Your task to perform on an android device: Open calendar and show me the third week of next month Image 0: 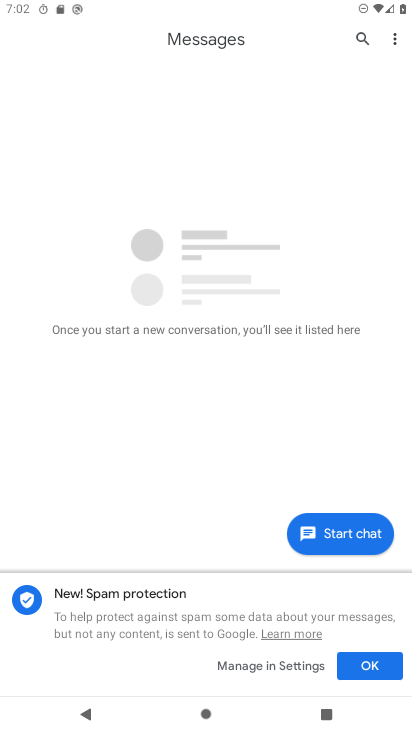
Step 0: press home button
Your task to perform on an android device: Open calendar and show me the third week of next month Image 1: 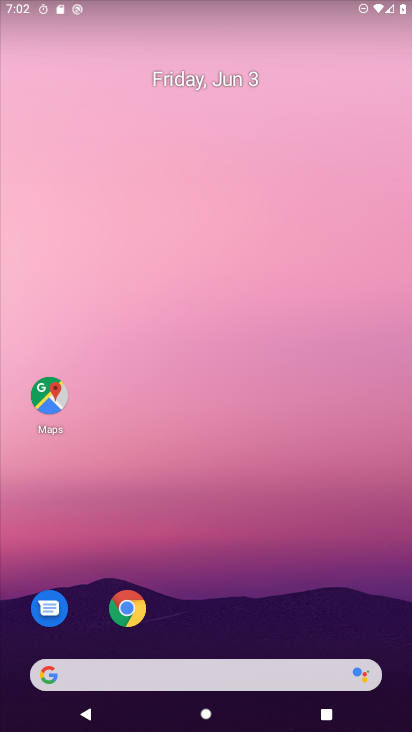
Step 1: click (212, 68)
Your task to perform on an android device: Open calendar and show me the third week of next month Image 2: 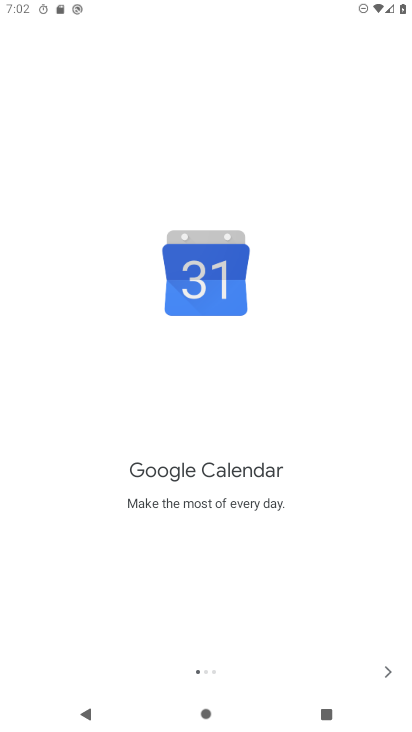
Step 2: click (396, 676)
Your task to perform on an android device: Open calendar and show me the third week of next month Image 3: 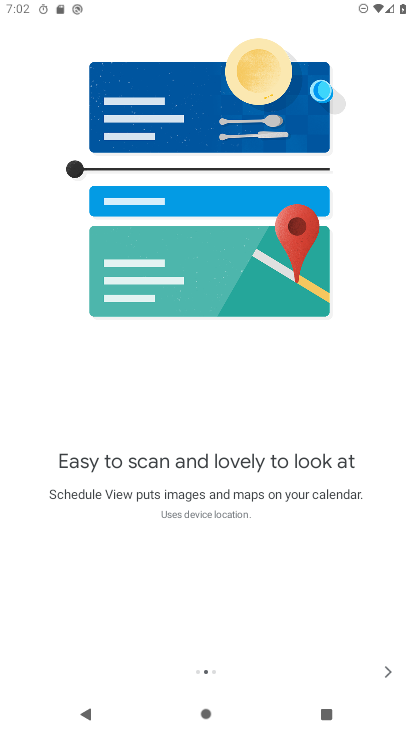
Step 3: click (396, 676)
Your task to perform on an android device: Open calendar and show me the third week of next month Image 4: 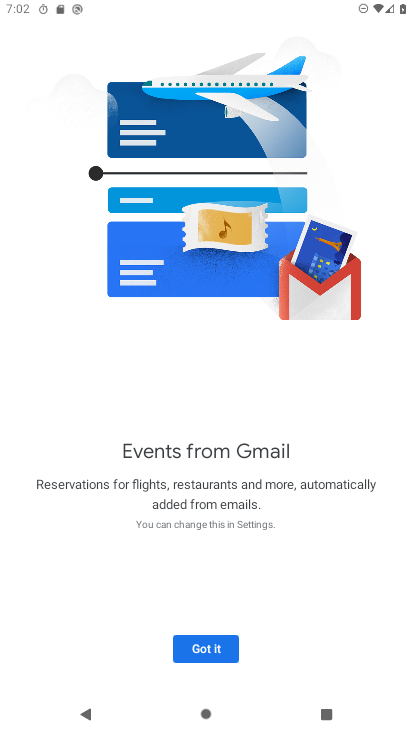
Step 4: click (208, 644)
Your task to perform on an android device: Open calendar and show me the third week of next month Image 5: 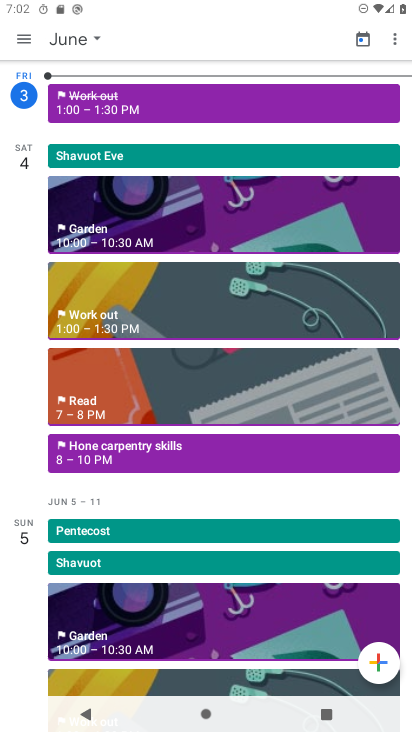
Step 5: click (73, 42)
Your task to perform on an android device: Open calendar and show me the third week of next month Image 6: 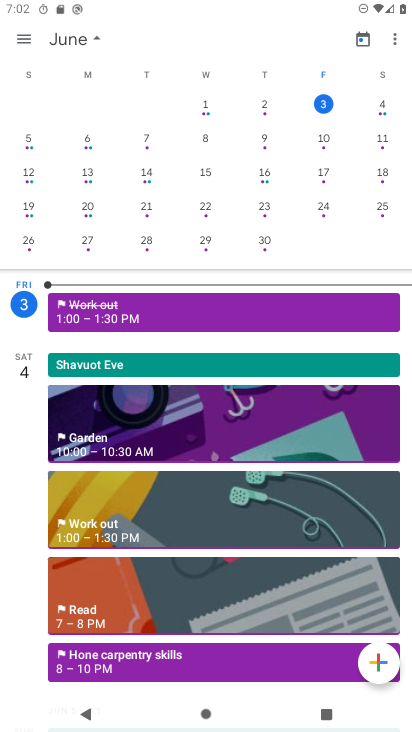
Step 6: drag from (383, 262) to (32, 235)
Your task to perform on an android device: Open calendar and show me the third week of next month Image 7: 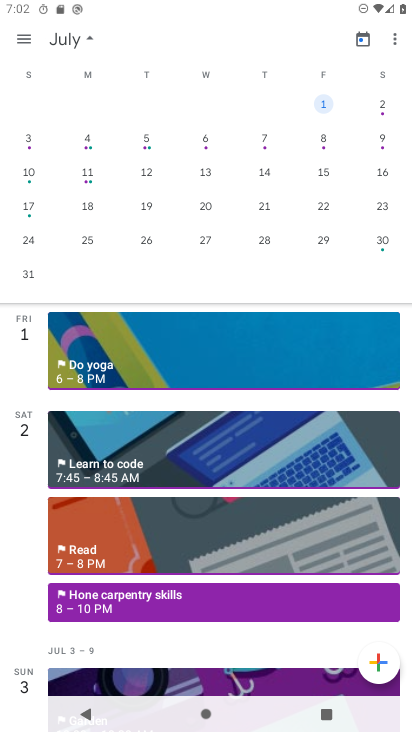
Step 7: click (156, 180)
Your task to perform on an android device: Open calendar and show me the third week of next month Image 8: 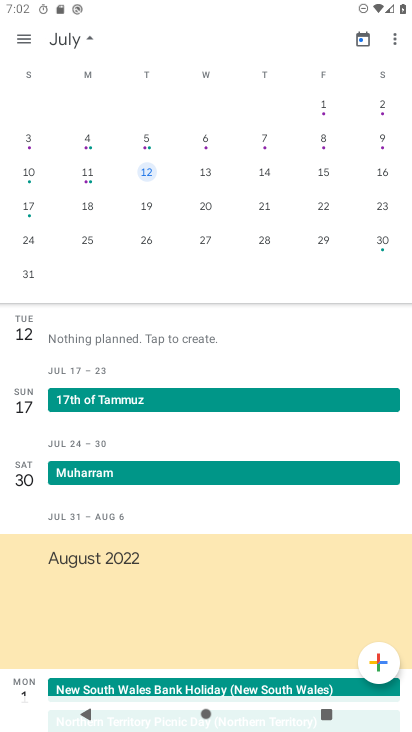
Step 8: task complete